Your task to perform on an android device: move a message to another label in the gmail app Image 0: 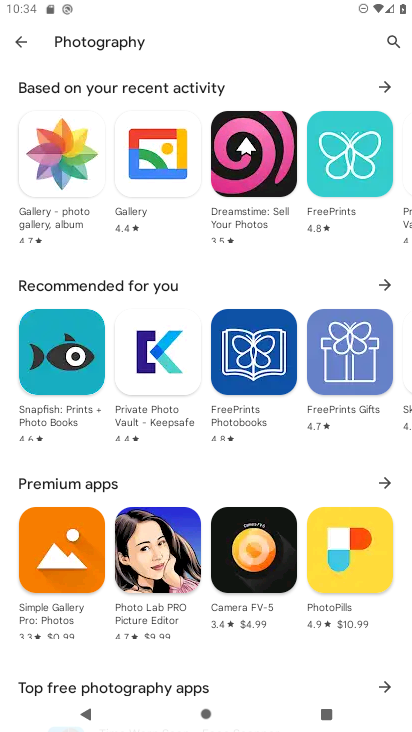
Step 0: press home button
Your task to perform on an android device: move a message to another label in the gmail app Image 1: 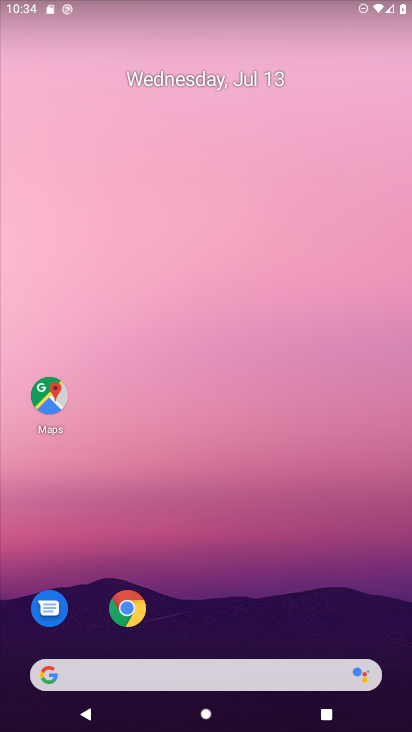
Step 1: drag from (147, 670) to (169, 218)
Your task to perform on an android device: move a message to another label in the gmail app Image 2: 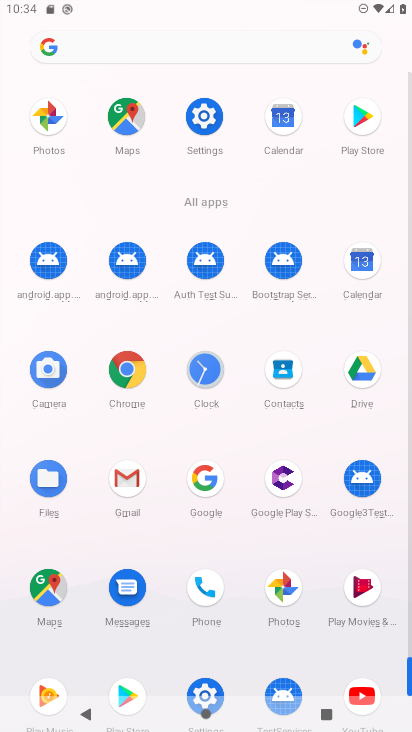
Step 2: click (126, 475)
Your task to perform on an android device: move a message to another label in the gmail app Image 3: 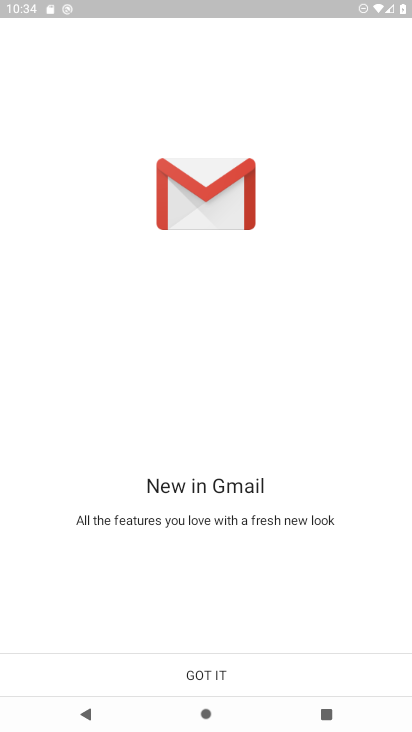
Step 3: click (205, 668)
Your task to perform on an android device: move a message to another label in the gmail app Image 4: 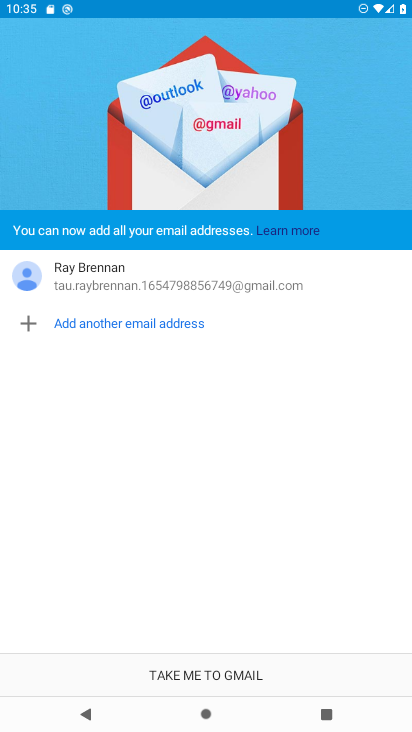
Step 4: click (205, 671)
Your task to perform on an android device: move a message to another label in the gmail app Image 5: 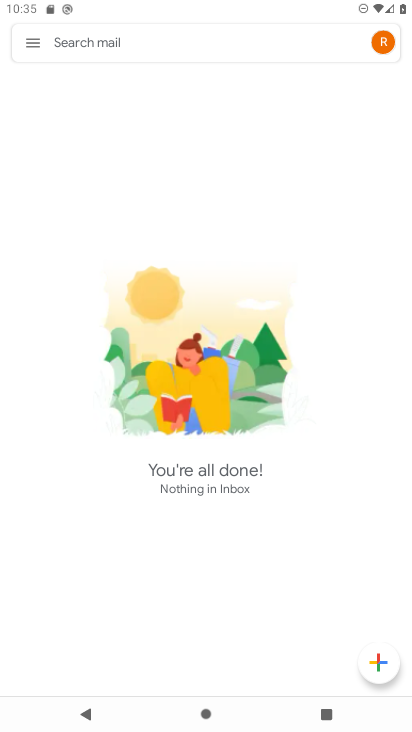
Step 5: click (30, 41)
Your task to perform on an android device: move a message to another label in the gmail app Image 6: 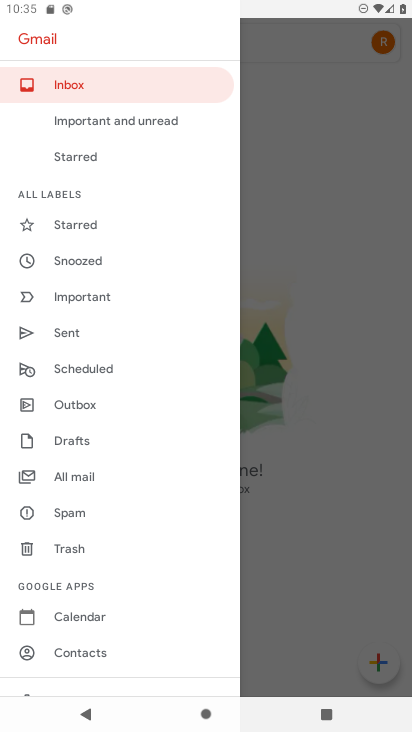
Step 6: click (64, 476)
Your task to perform on an android device: move a message to another label in the gmail app Image 7: 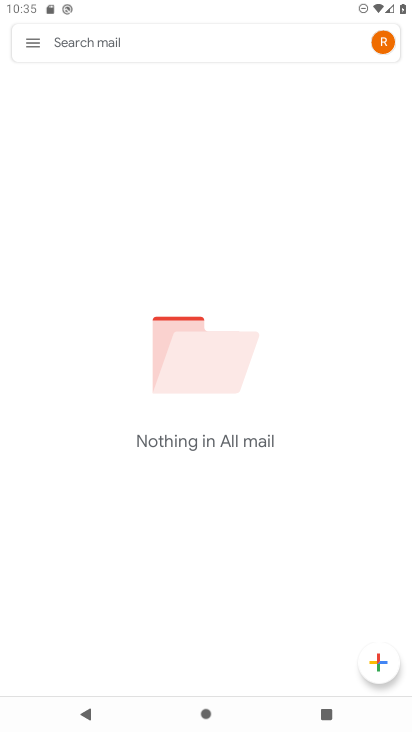
Step 7: click (30, 38)
Your task to perform on an android device: move a message to another label in the gmail app Image 8: 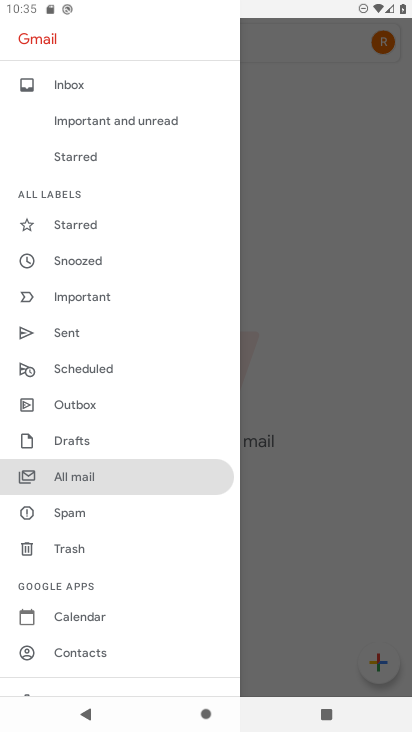
Step 8: click (78, 222)
Your task to perform on an android device: move a message to another label in the gmail app Image 9: 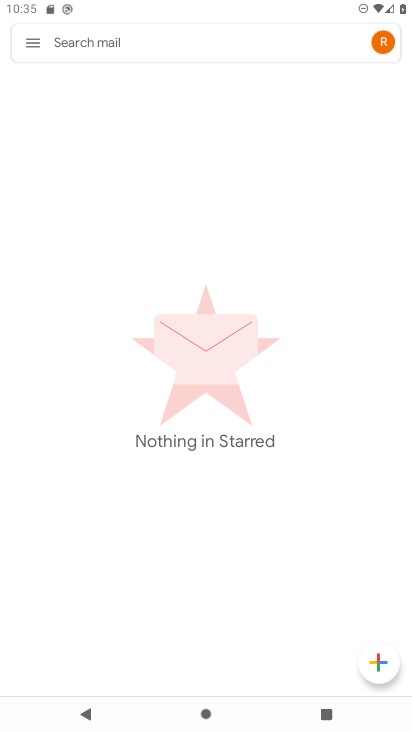
Step 9: click (38, 49)
Your task to perform on an android device: move a message to another label in the gmail app Image 10: 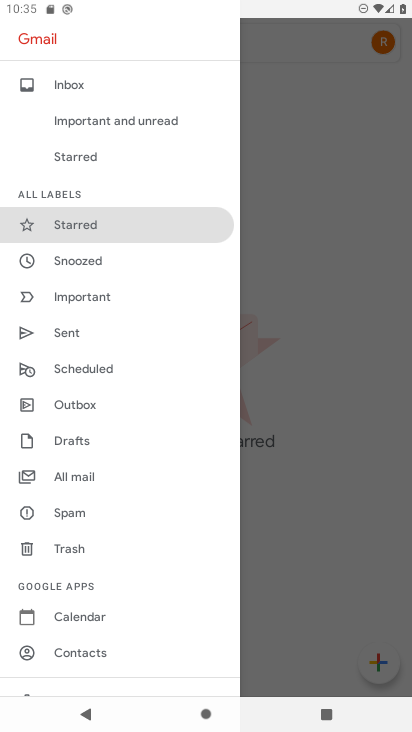
Step 10: click (93, 269)
Your task to perform on an android device: move a message to another label in the gmail app Image 11: 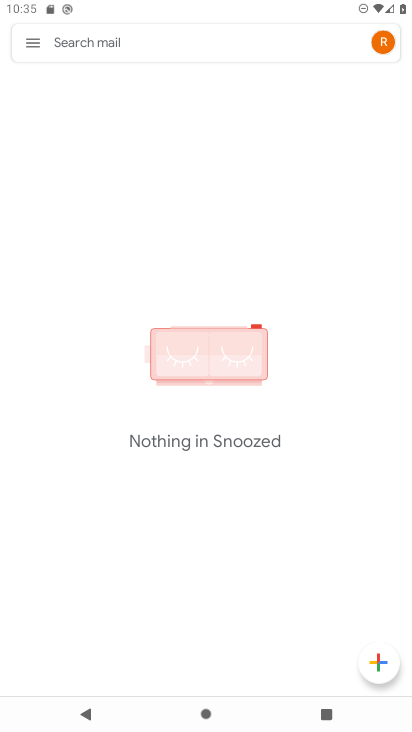
Step 11: click (33, 42)
Your task to perform on an android device: move a message to another label in the gmail app Image 12: 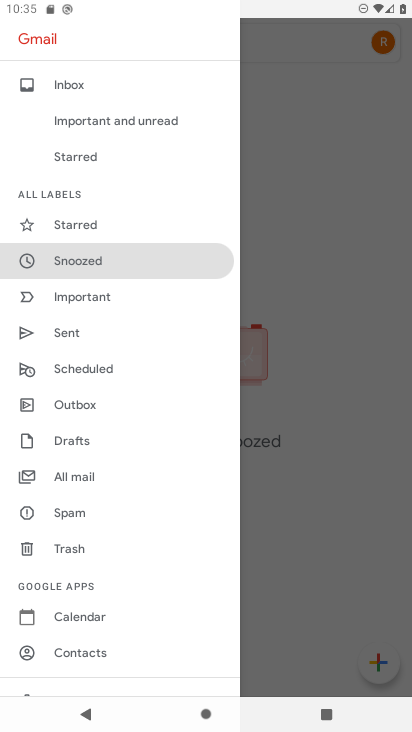
Step 12: click (108, 291)
Your task to perform on an android device: move a message to another label in the gmail app Image 13: 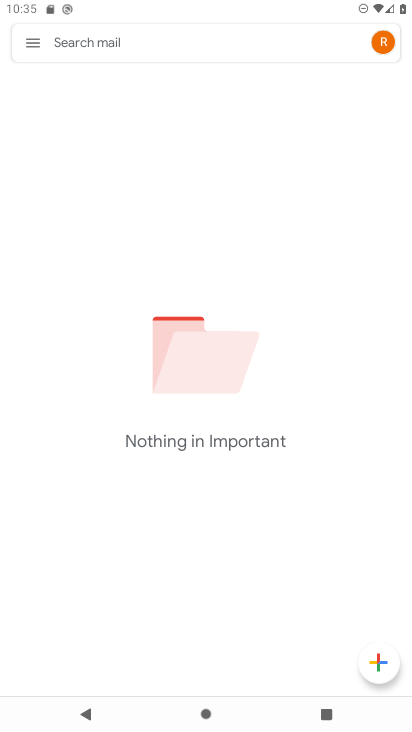
Step 13: click (31, 42)
Your task to perform on an android device: move a message to another label in the gmail app Image 14: 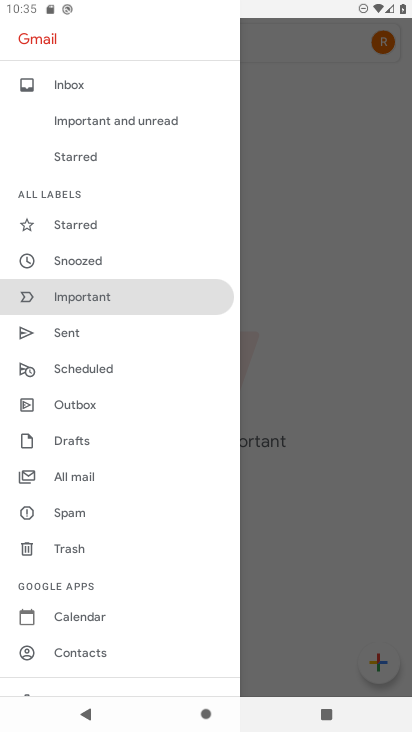
Step 14: click (59, 322)
Your task to perform on an android device: move a message to another label in the gmail app Image 15: 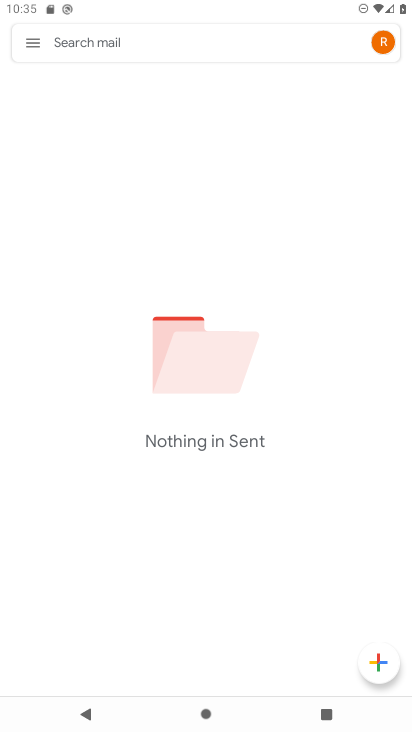
Step 15: task complete